Your task to perform on an android device: View the shopping cart on costco.com. Search for "razer naga" on costco.com, select the first entry, and add it to the cart. Image 0: 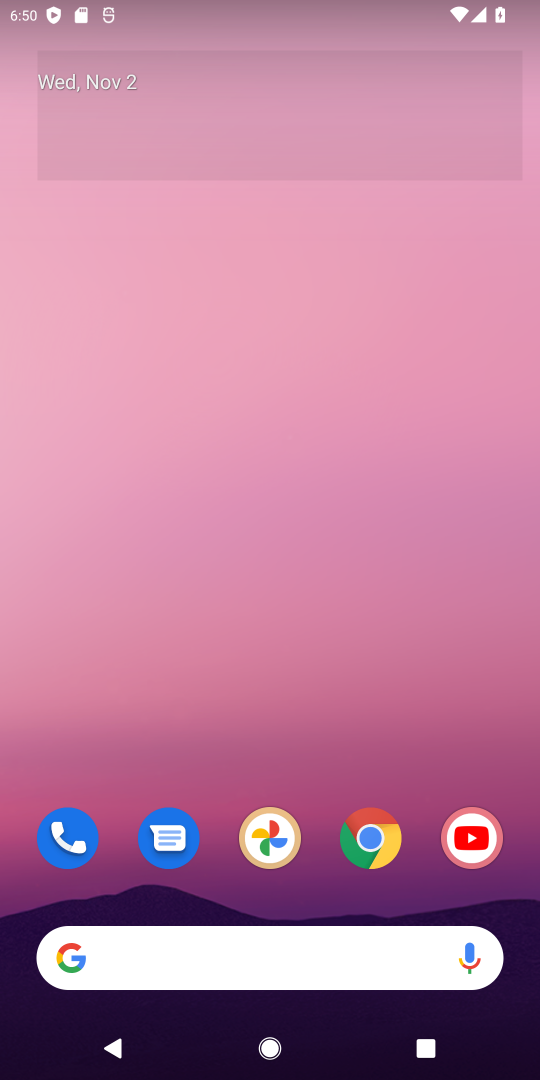
Step 0: click (373, 853)
Your task to perform on an android device: View the shopping cart on costco.com. Search for "razer naga" on costco.com, select the first entry, and add it to the cart. Image 1: 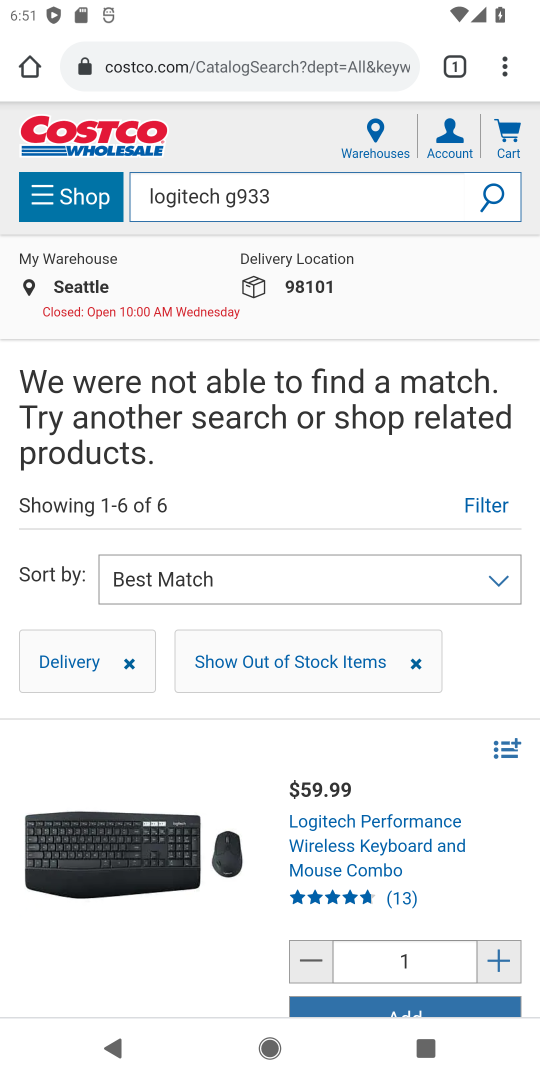
Step 1: click (282, 80)
Your task to perform on an android device: View the shopping cart on costco.com. Search for "razer naga" on costco.com, select the first entry, and add it to the cart. Image 2: 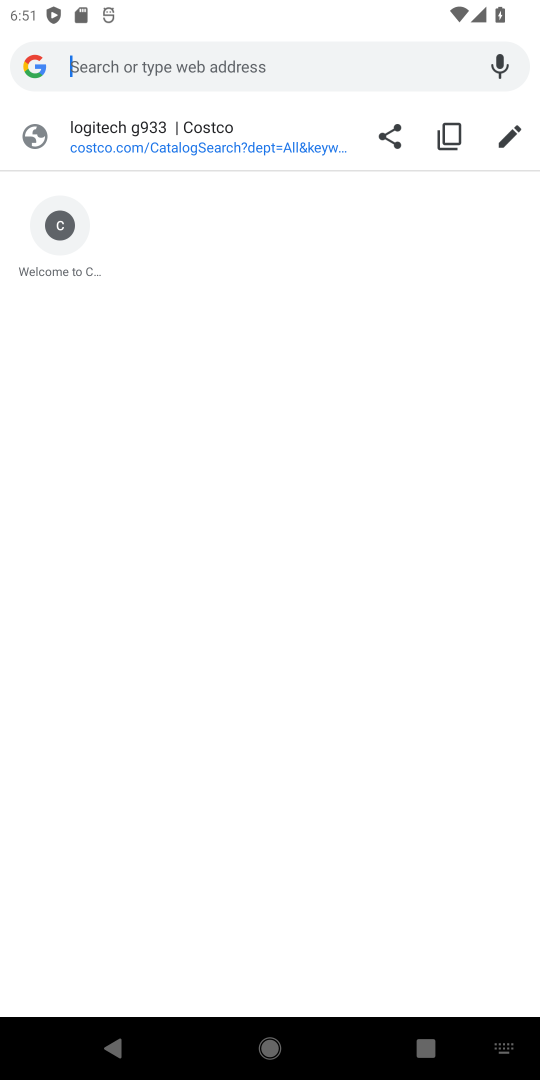
Step 2: type "costco.com"
Your task to perform on an android device: View the shopping cart on costco.com. Search for "razer naga" on costco.com, select the first entry, and add it to the cart. Image 3: 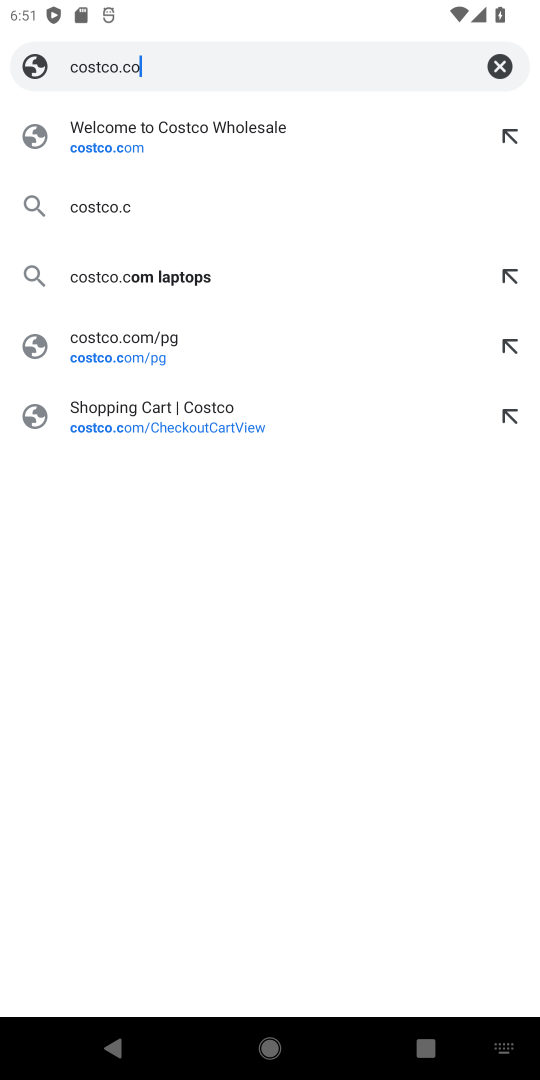
Step 3: type ""
Your task to perform on an android device: View the shopping cart on costco.com. Search for "razer naga" on costco.com, select the first entry, and add it to the cart. Image 4: 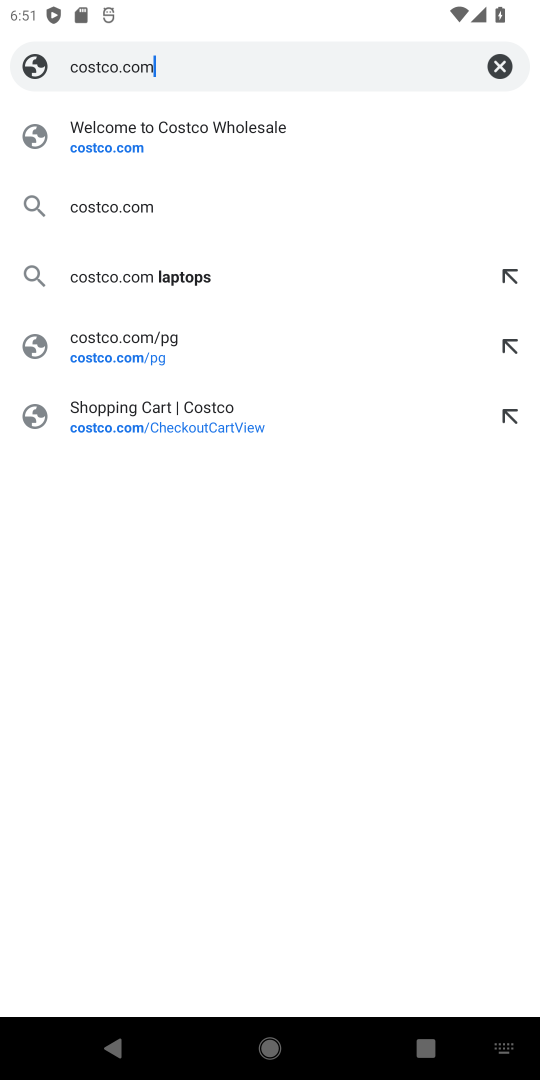
Step 4: press enter
Your task to perform on an android device: View the shopping cart on costco.com. Search for "razer naga" on costco.com, select the first entry, and add it to the cart. Image 5: 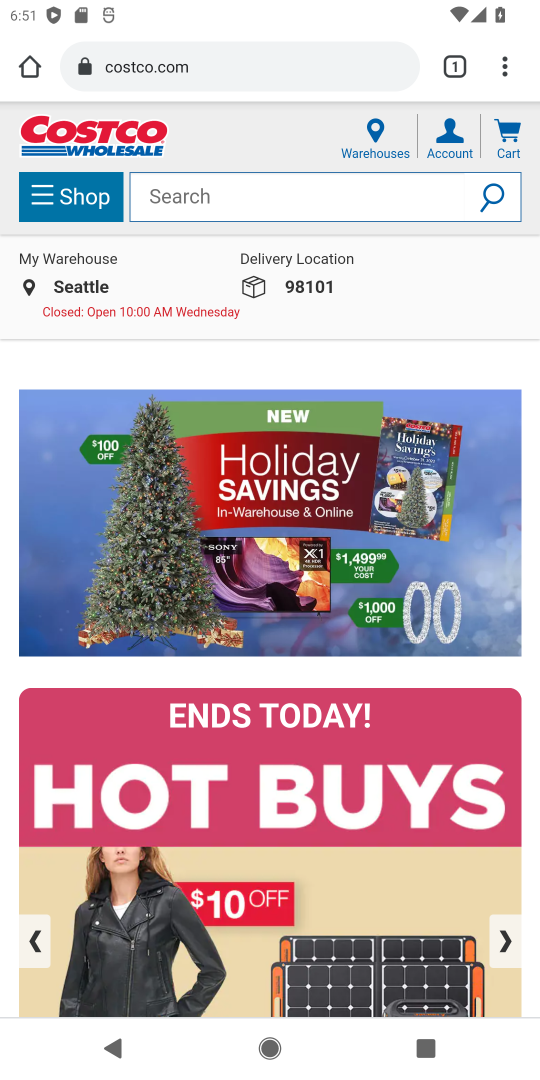
Step 5: click (500, 143)
Your task to perform on an android device: View the shopping cart on costco.com. Search for "razer naga" on costco.com, select the first entry, and add it to the cart. Image 6: 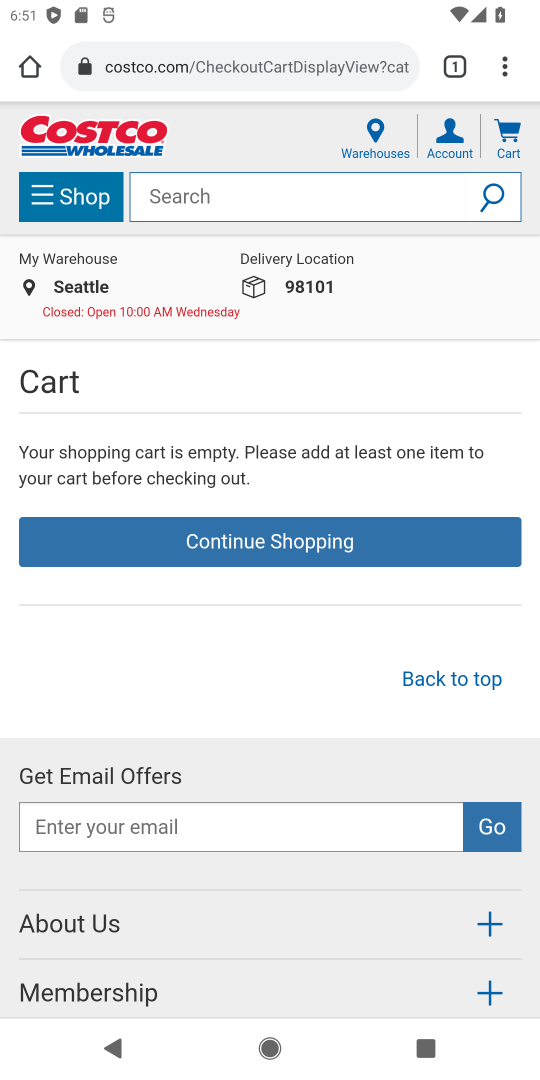
Step 6: click (388, 198)
Your task to perform on an android device: View the shopping cart on costco.com. Search for "razer naga" on costco.com, select the first entry, and add it to the cart. Image 7: 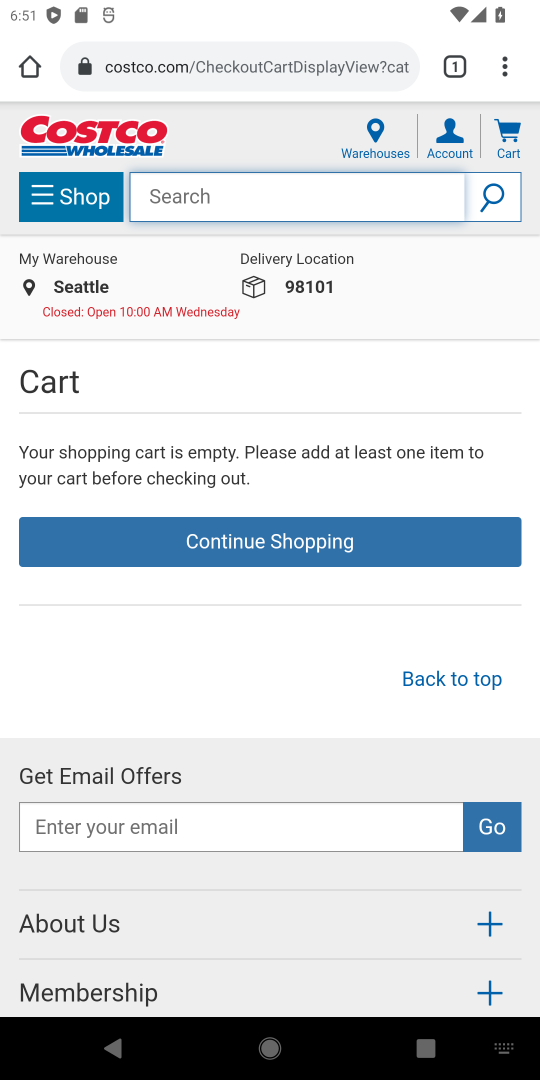
Step 7: type "razer naga"
Your task to perform on an android device: View the shopping cart on costco.com. Search for "razer naga" on costco.com, select the first entry, and add it to the cart. Image 8: 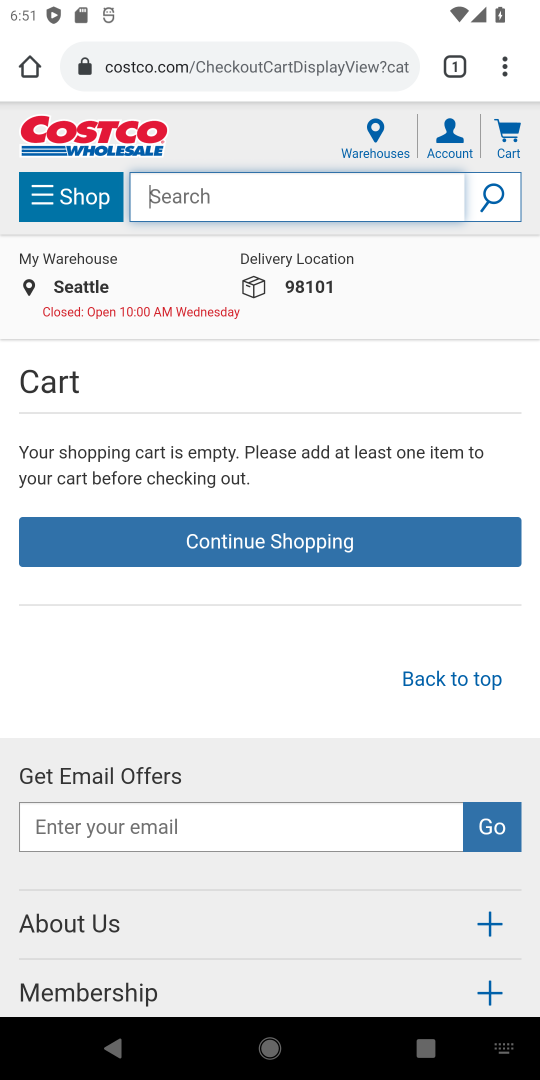
Step 8: type ""
Your task to perform on an android device: View the shopping cart on costco.com. Search for "razer naga" on costco.com, select the first entry, and add it to the cart. Image 9: 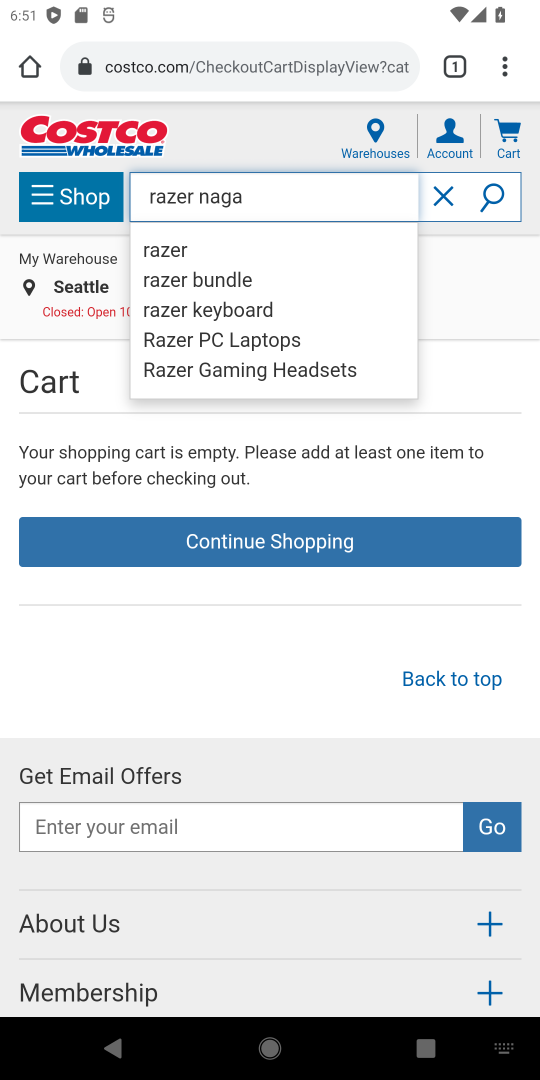
Step 9: press enter
Your task to perform on an android device: View the shopping cart on costco.com. Search for "razer naga" on costco.com, select the first entry, and add it to the cart. Image 10: 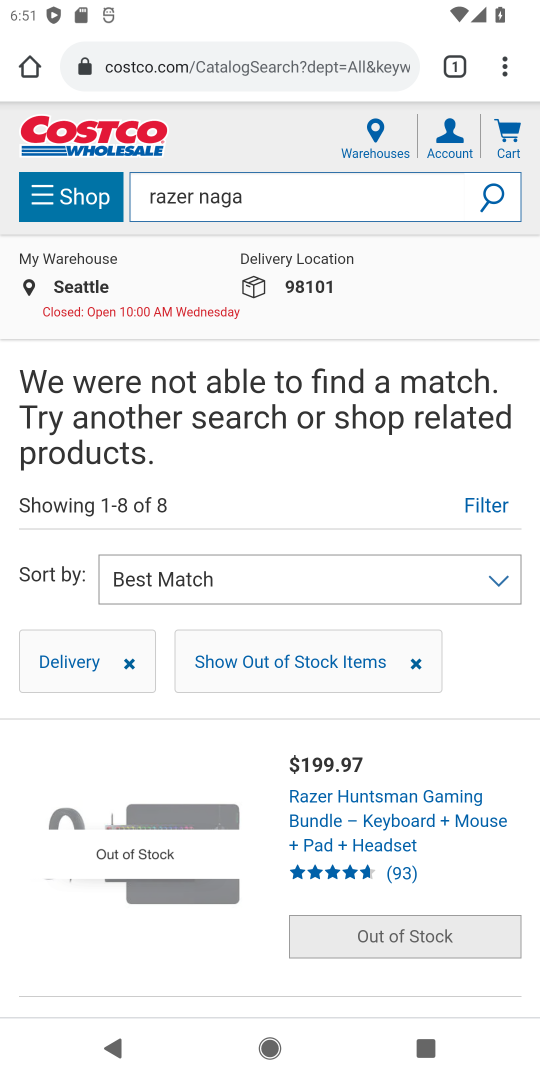
Step 10: task complete